Your task to perform on an android device: toggle sleep mode Image 0: 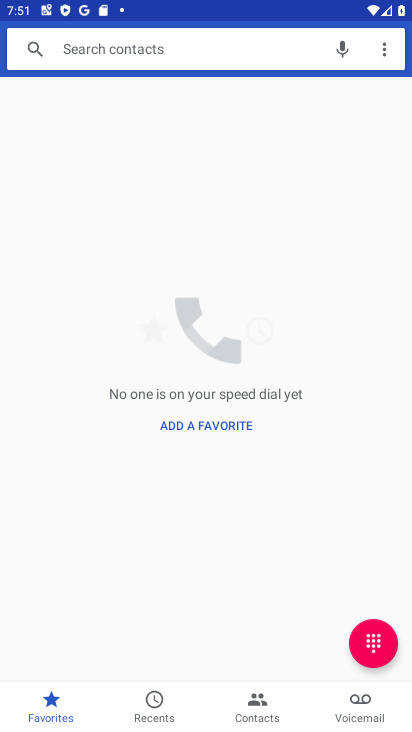
Step 0: press home button
Your task to perform on an android device: toggle sleep mode Image 1: 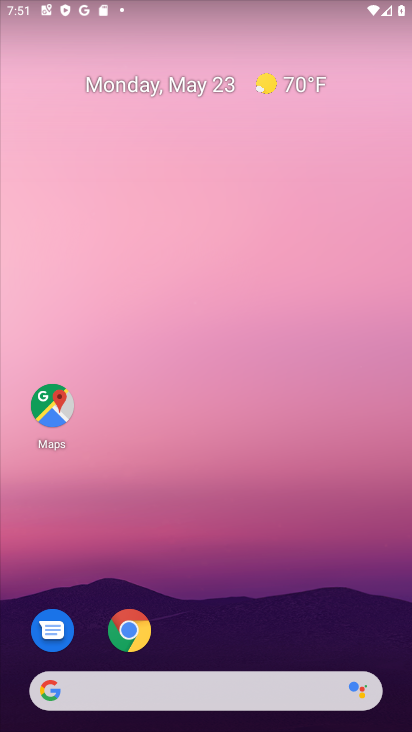
Step 1: drag from (214, 605) to (224, 179)
Your task to perform on an android device: toggle sleep mode Image 2: 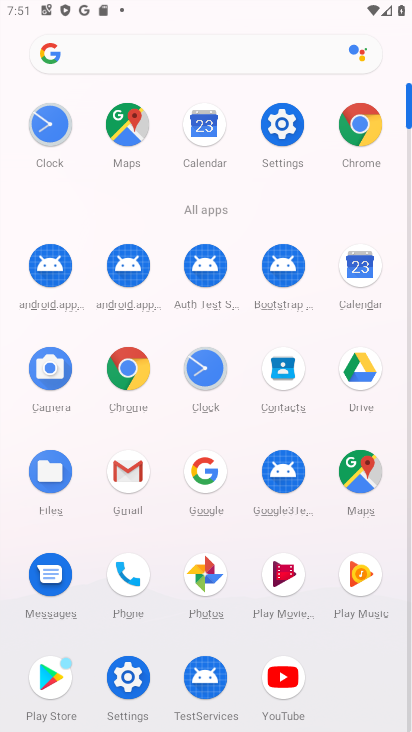
Step 2: click (274, 127)
Your task to perform on an android device: toggle sleep mode Image 3: 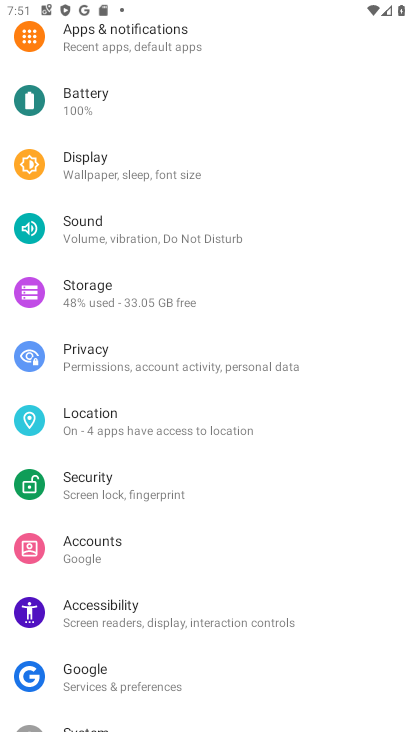
Step 3: drag from (237, 171) to (197, 604)
Your task to perform on an android device: toggle sleep mode Image 4: 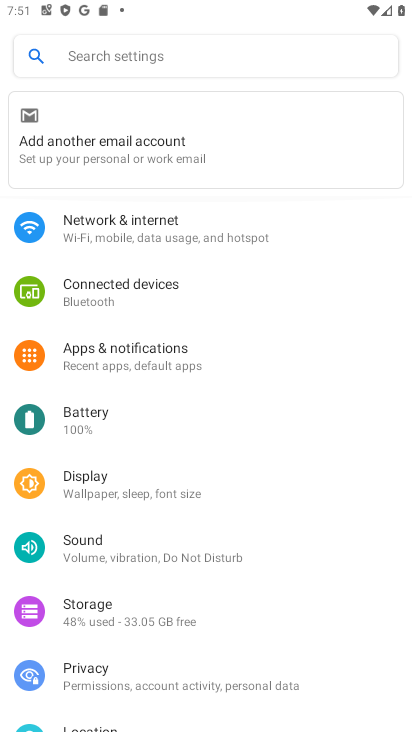
Step 4: drag from (200, 580) to (289, 237)
Your task to perform on an android device: toggle sleep mode Image 5: 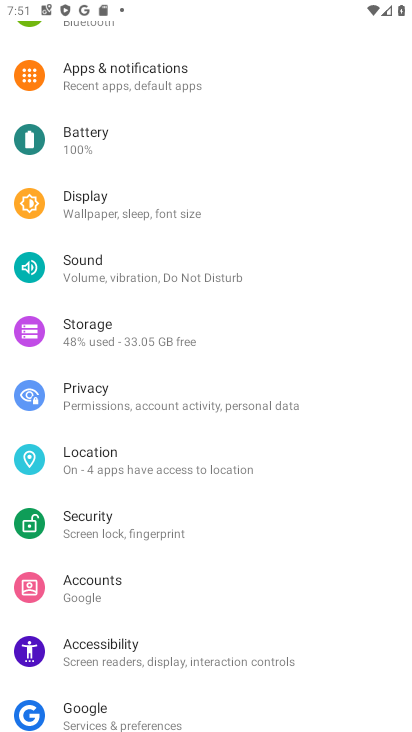
Step 5: click (138, 219)
Your task to perform on an android device: toggle sleep mode Image 6: 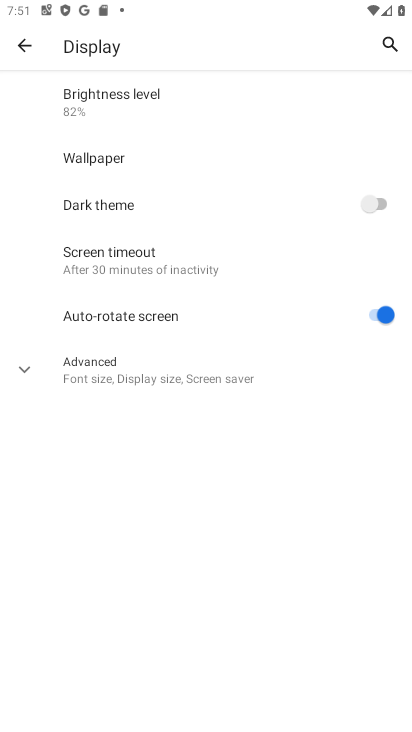
Step 6: click (147, 260)
Your task to perform on an android device: toggle sleep mode Image 7: 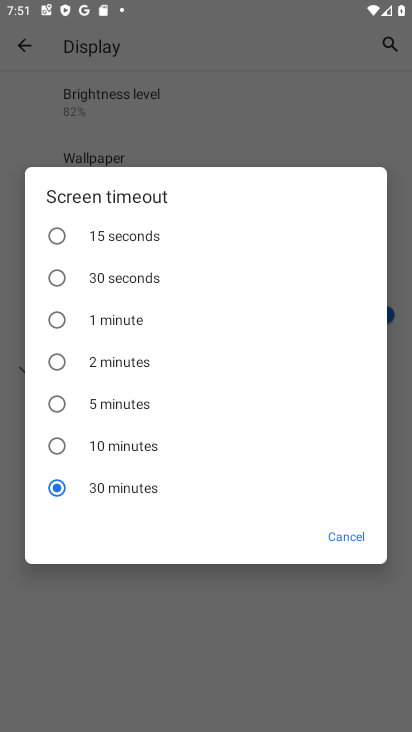
Step 7: click (73, 448)
Your task to perform on an android device: toggle sleep mode Image 8: 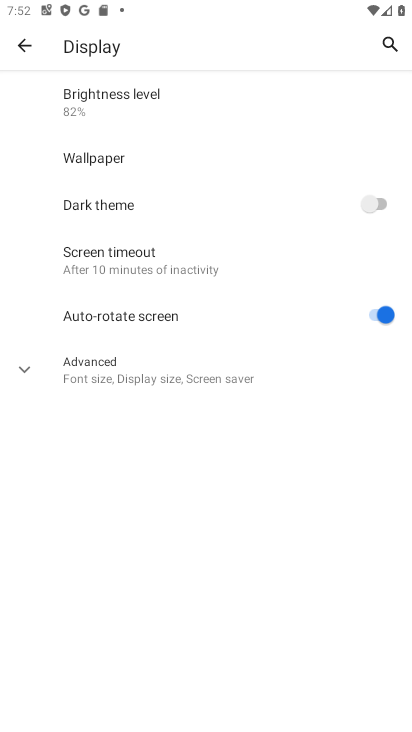
Step 8: task complete